Your task to perform on an android device: Show me recent news Image 0: 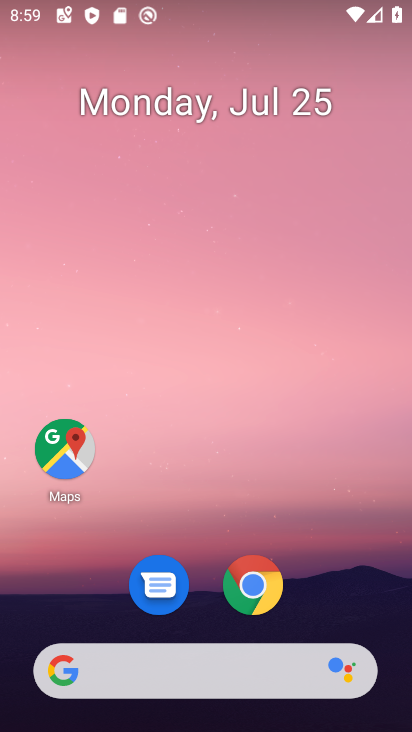
Step 0: click (156, 670)
Your task to perform on an android device: Show me recent news Image 1: 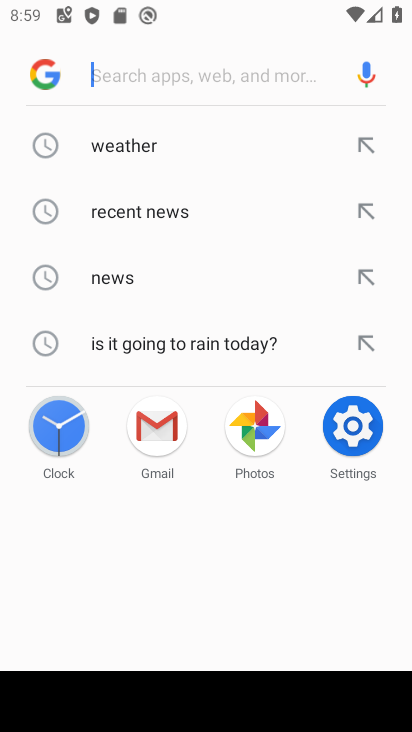
Step 1: click (173, 210)
Your task to perform on an android device: Show me recent news Image 2: 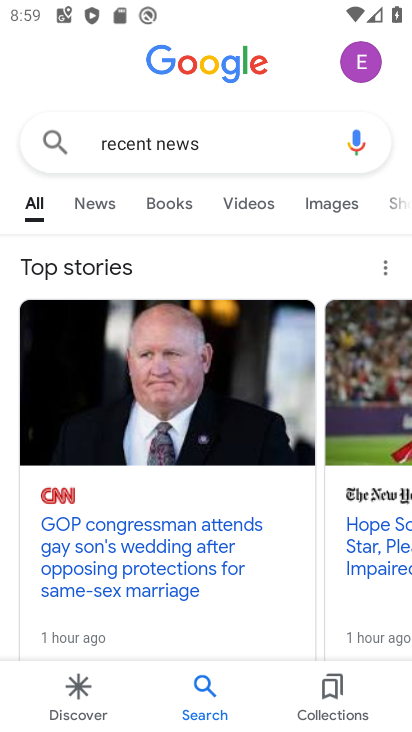
Step 2: click (105, 209)
Your task to perform on an android device: Show me recent news Image 3: 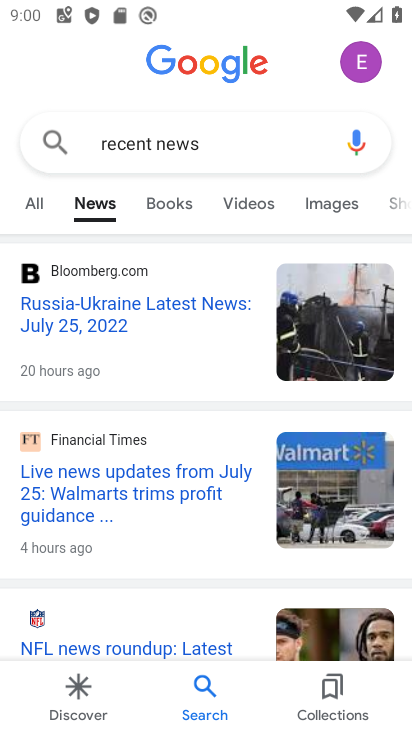
Step 3: task complete